Your task to perform on an android device: Open calendar and show me the fourth week of next month Image 0: 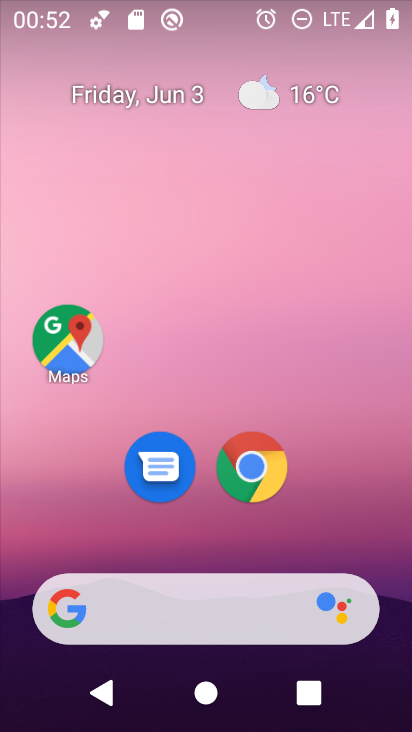
Step 0: drag from (406, 610) to (338, 55)
Your task to perform on an android device: Open calendar and show me the fourth week of next month Image 1: 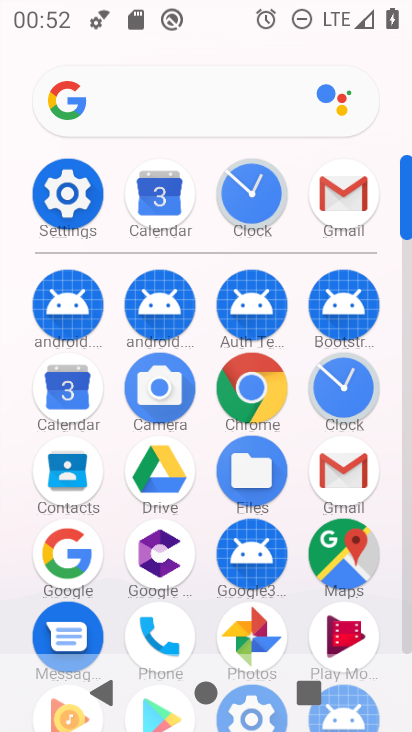
Step 1: click (406, 621)
Your task to perform on an android device: Open calendar and show me the fourth week of next month Image 2: 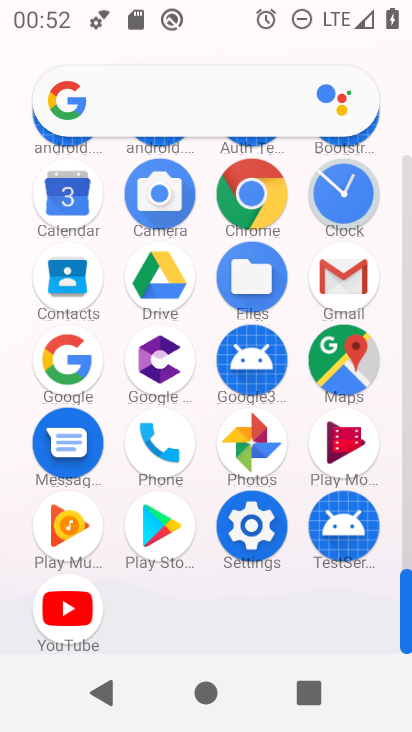
Step 2: click (65, 192)
Your task to perform on an android device: Open calendar and show me the fourth week of next month Image 3: 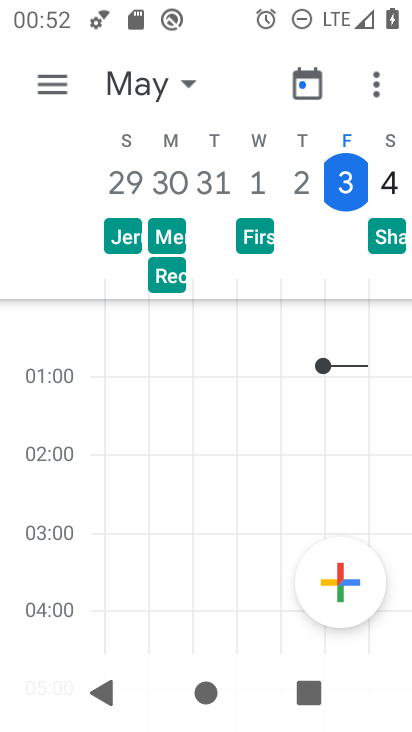
Step 3: click (56, 88)
Your task to perform on an android device: Open calendar and show me the fourth week of next month Image 4: 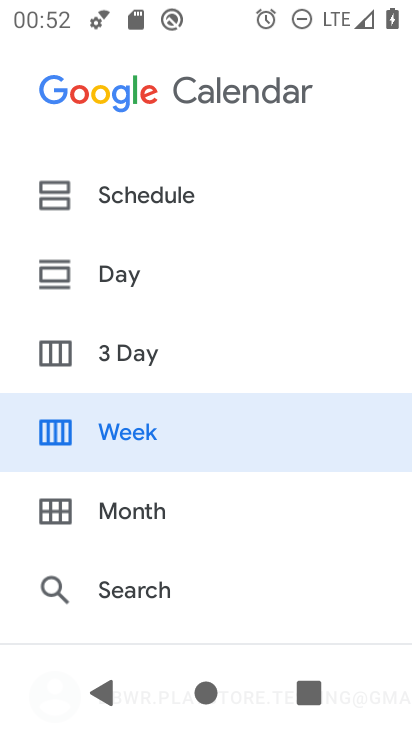
Step 4: click (134, 433)
Your task to perform on an android device: Open calendar and show me the fourth week of next month Image 5: 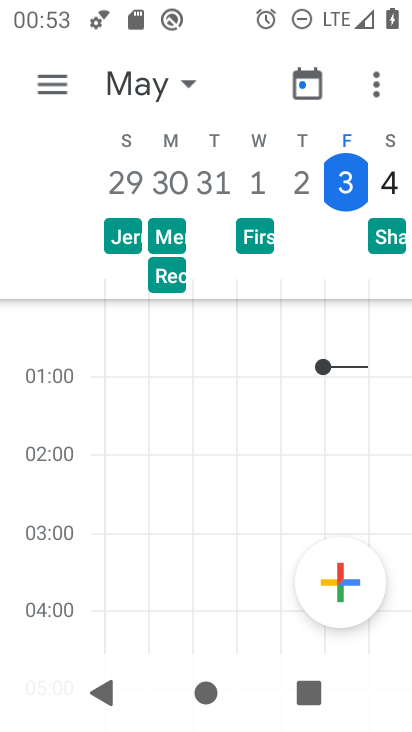
Step 5: click (188, 84)
Your task to perform on an android device: Open calendar and show me the fourth week of next month Image 6: 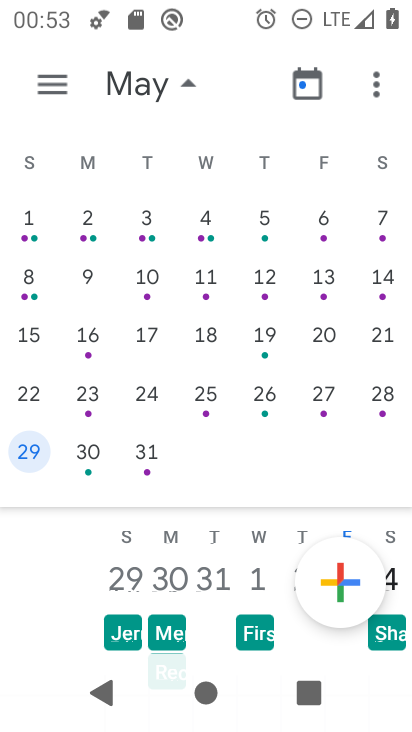
Step 6: drag from (371, 328) to (3, 213)
Your task to perform on an android device: Open calendar and show me the fourth week of next month Image 7: 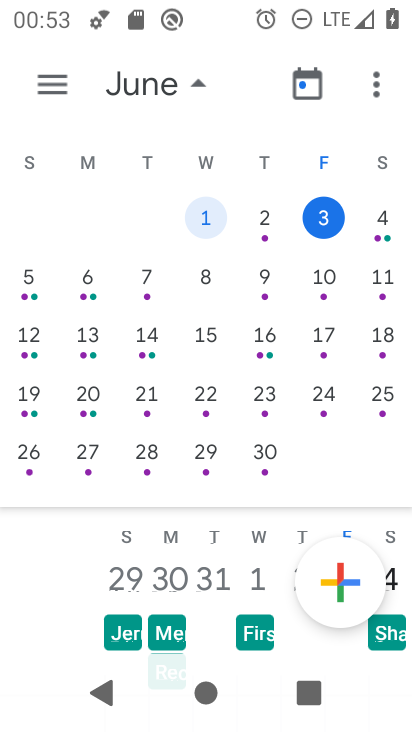
Step 7: drag from (390, 349) to (1, 322)
Your task to perform on an android device: Open calendar and show me the fourth week of next month Image 8: 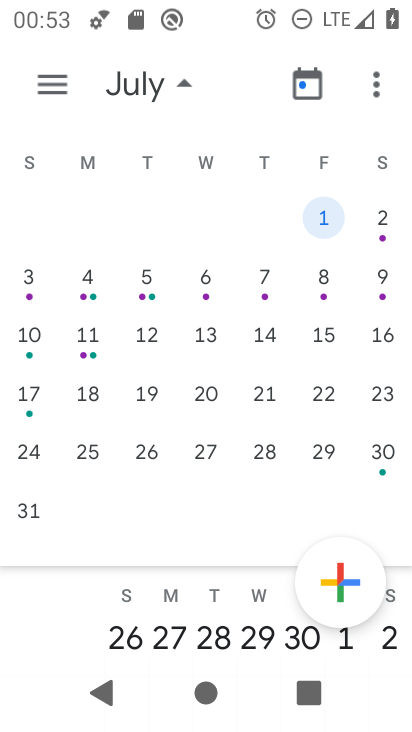
Step 8: click (24, 452)
Your task to perform on an android device: Open calendar and show me the fourth week of next month Image 9: 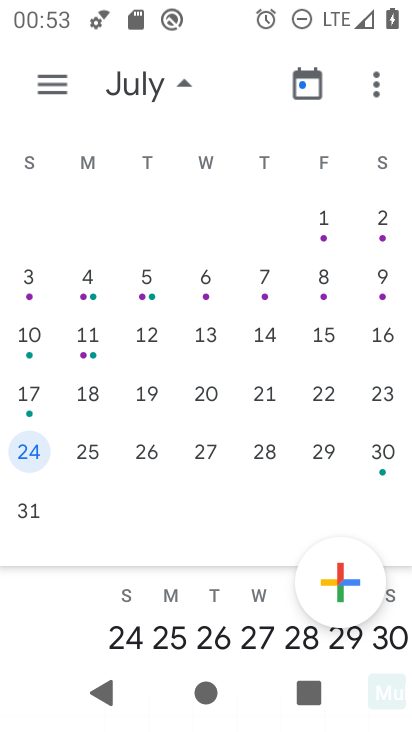
Step 9: task complete